Your task to perform on an android device: Open settings on Google Maps Image 0: 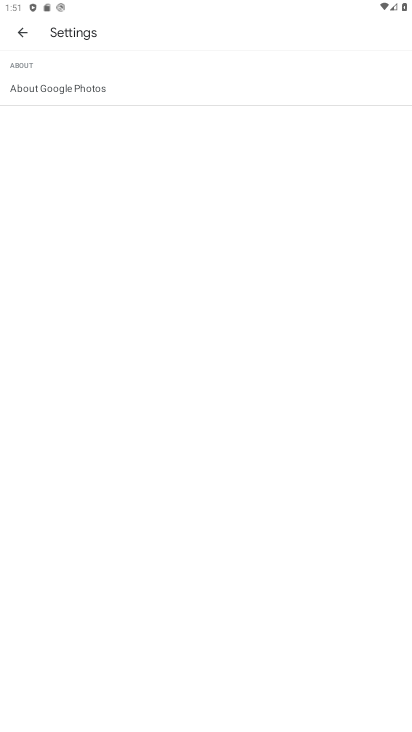
Step 0: press home button
Your task to perform on an android device: Open settings on Google Maps Image 1: 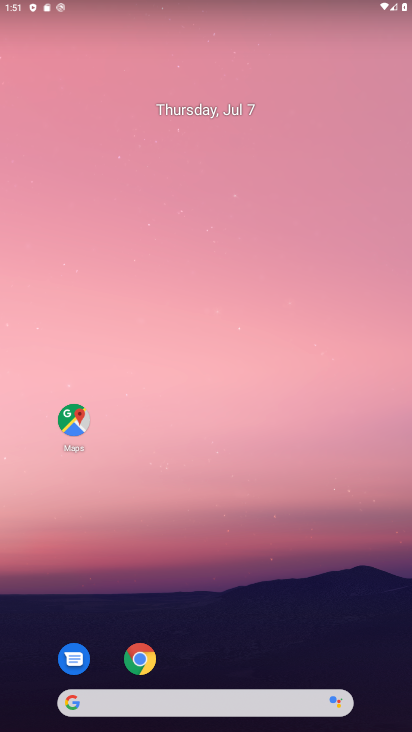
Step 1: drag from (219, 428) to (199, 103)
Your task to perform on an android device: Open settings on Google Maps Image 2: 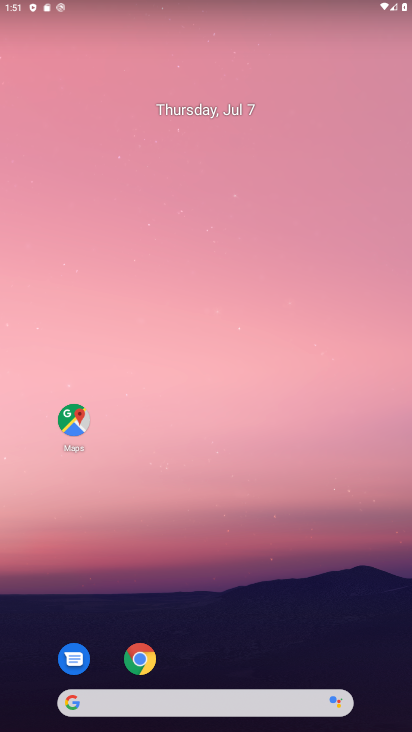
Step 2: drag from (225, 452) to (126, 0)
Your task to perform on an android device: Open settings on Google Maps Image 3: 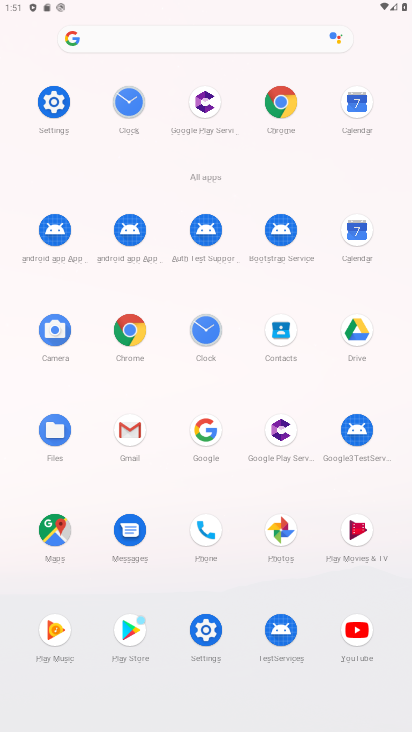
Step 3: click (52, 115)
Your task to perform on an android device: Open settings on Google Maps Image 4: 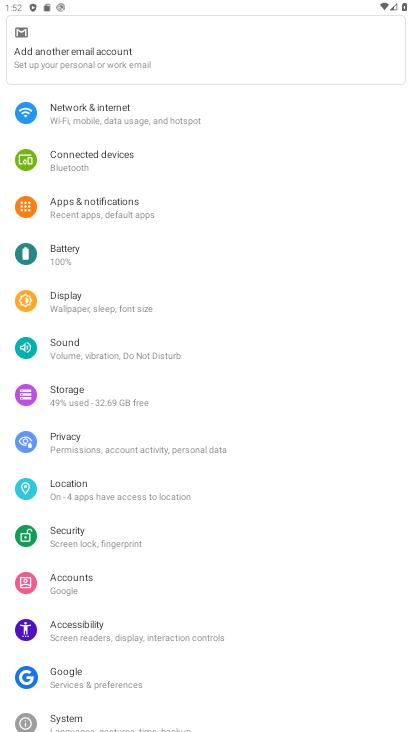
Step 4: press home button
Your task to perform on an android device: Open settings on Google Maps Image 5: 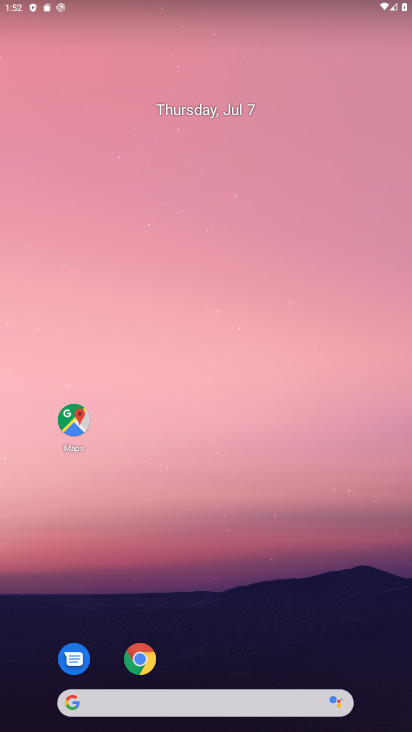
Step 5: drag from (242, 498) to (218, 12)
Your task to perform on an android device: Open settings on Google Maps Image 6: 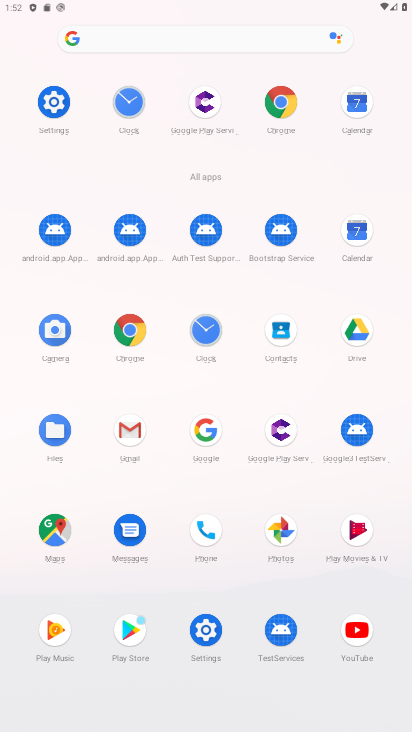
Step 6: click (58, 117)
Your task to perform on an android device: Open settings on Google Maps Image 7: 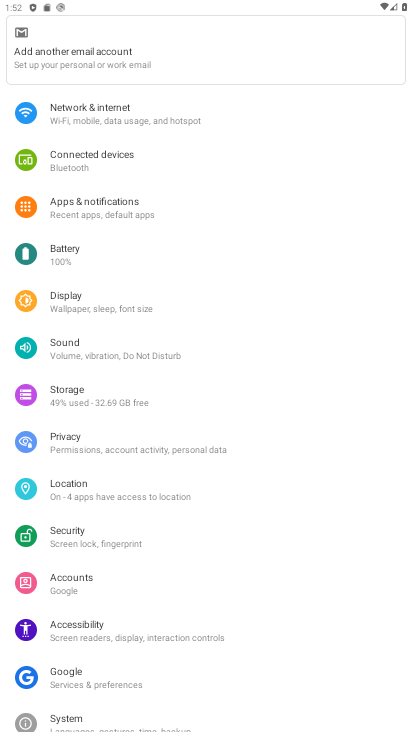
Step 7: press home button
Your task to perform on an android device: Open settings on Google Maps Image 8: 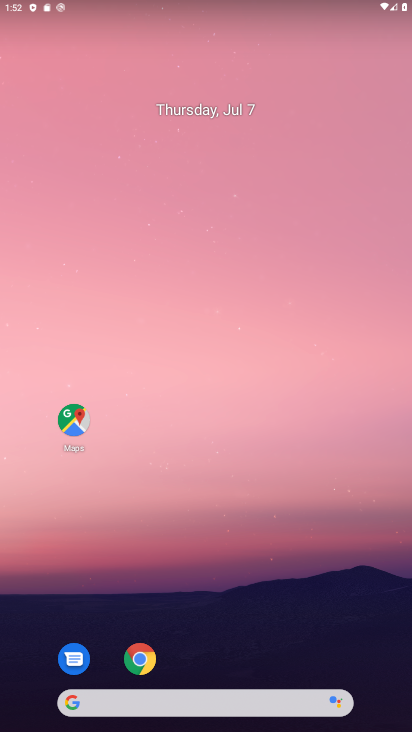
Step 8: drag from (315, 559) to (259, 6)
Your task to perform on an android device: Open settings on Google Maps Image 9: 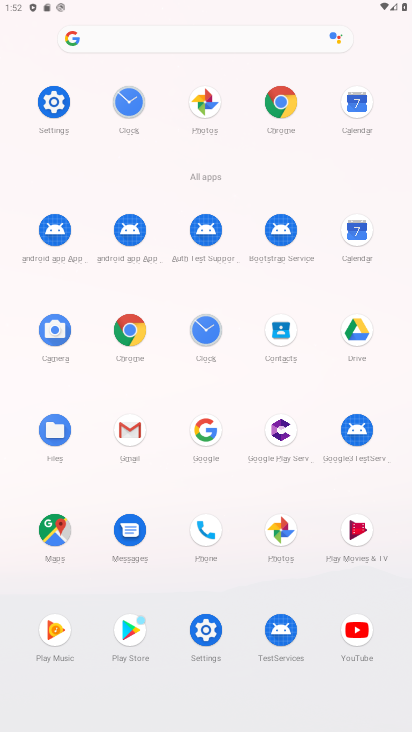
Step 9: click (48, 530)
Your task to perform on an android device: Open settings on Google Maps Image 10: 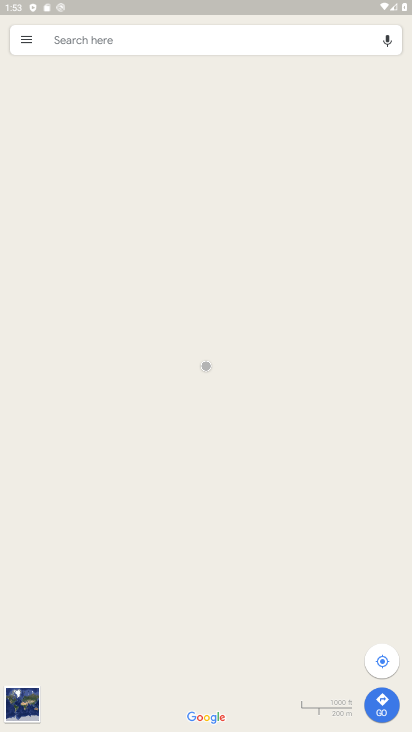
Step 10: click (91, 576)
Your task to perform on an android device: Open settings on Google Maps Image 11: 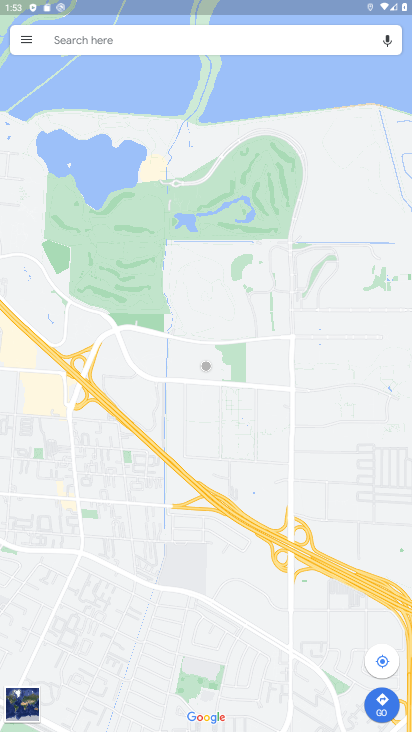
Step 11: click (29, 40)
Your task to perform on an android device: Open settings on Google Maps Image 12: 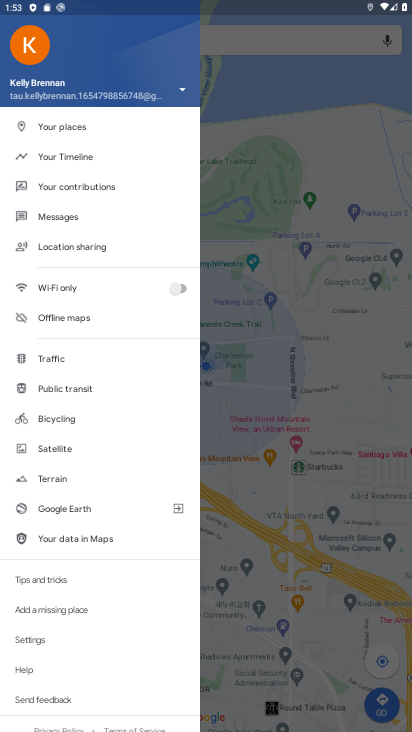
Step 12: click (62, 635)
Your task to perform on an android device: Open settings on Google Maps Image 13: 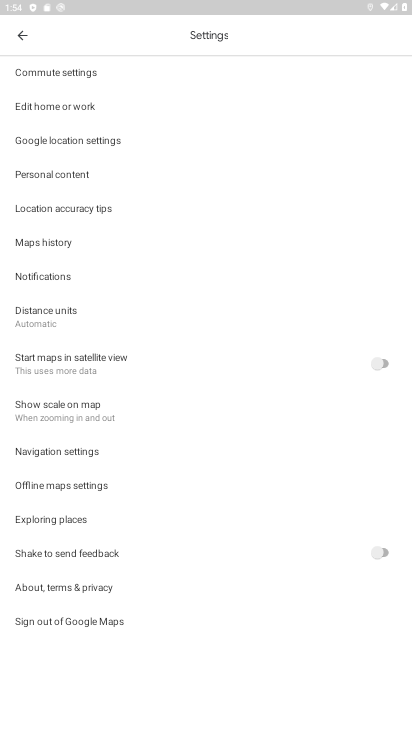
Step 13: task complete